Your task to perform on an android device: Clear the cart on newegg. Image 0: 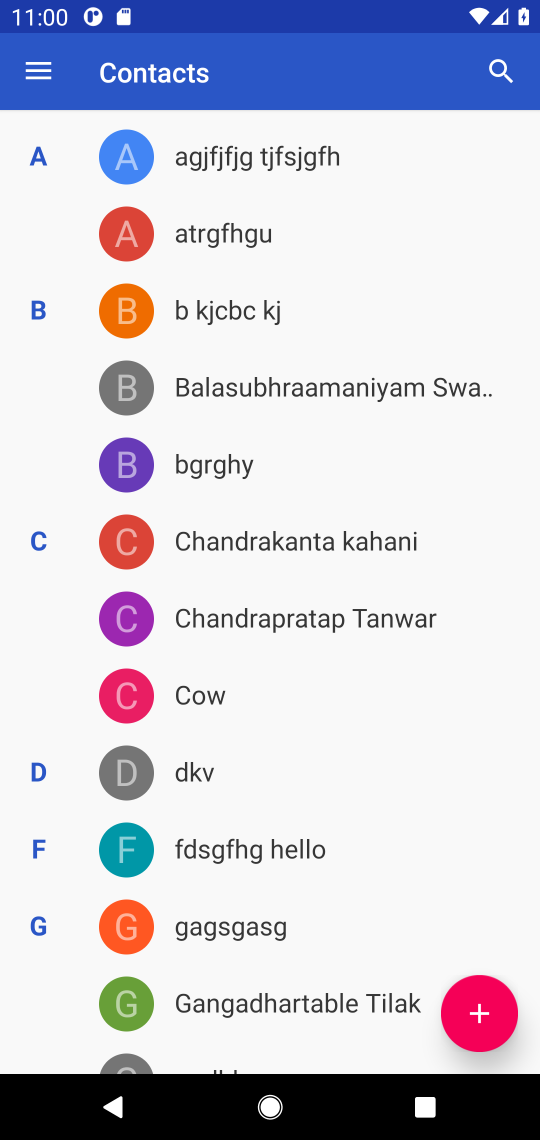
Step 0: press home button
Your task to perform on an android device: Clear the cart on newegg. Image 1: 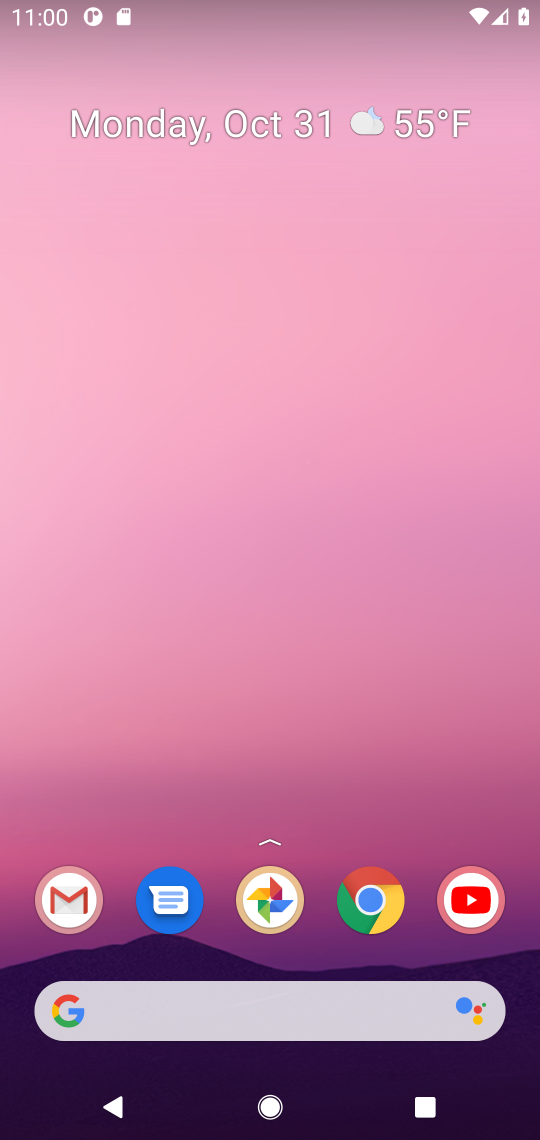
Step 1: click (369, 906)
Your task to perform on an android device: Clear the cart on newegg. Image 2: 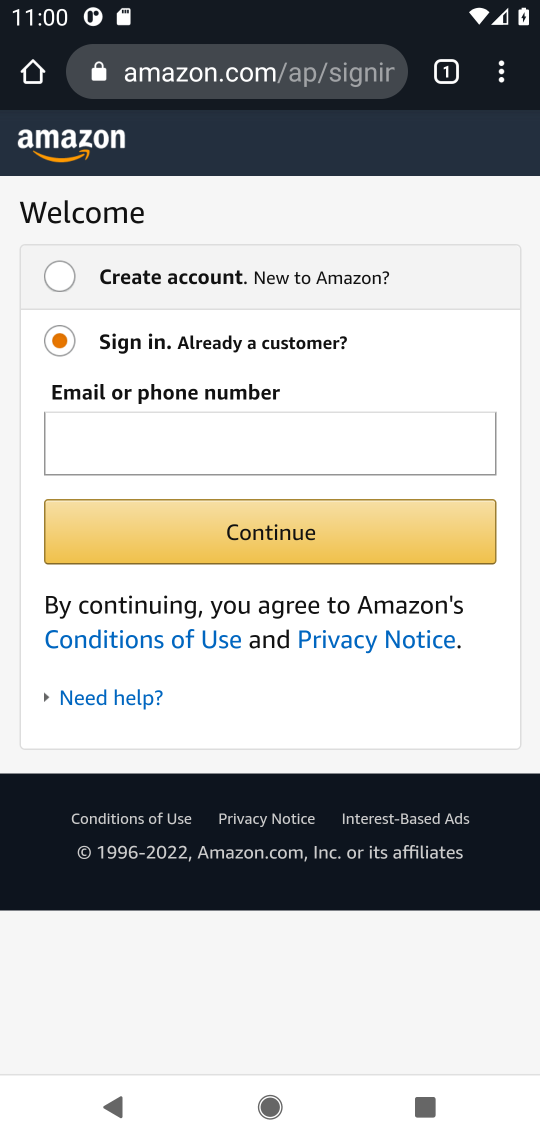
Step 2: click (369, 906)
Your task to perform on an android device: Clear the cart on newegg. Image 3: 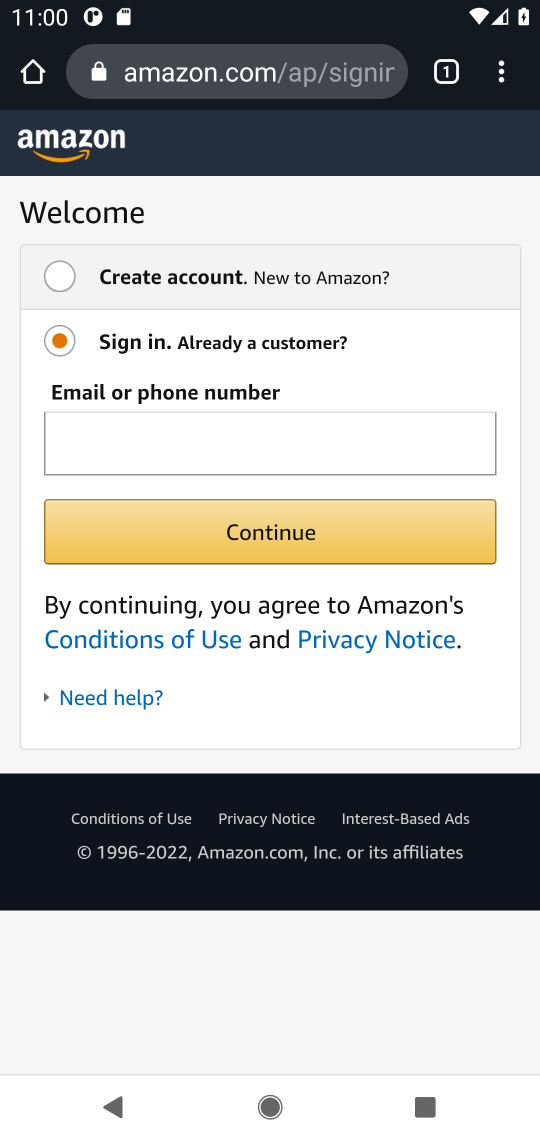
Step 3: click (261, 95)
Your task to perform on an android device: Clear the cart on newegg. Image 4: 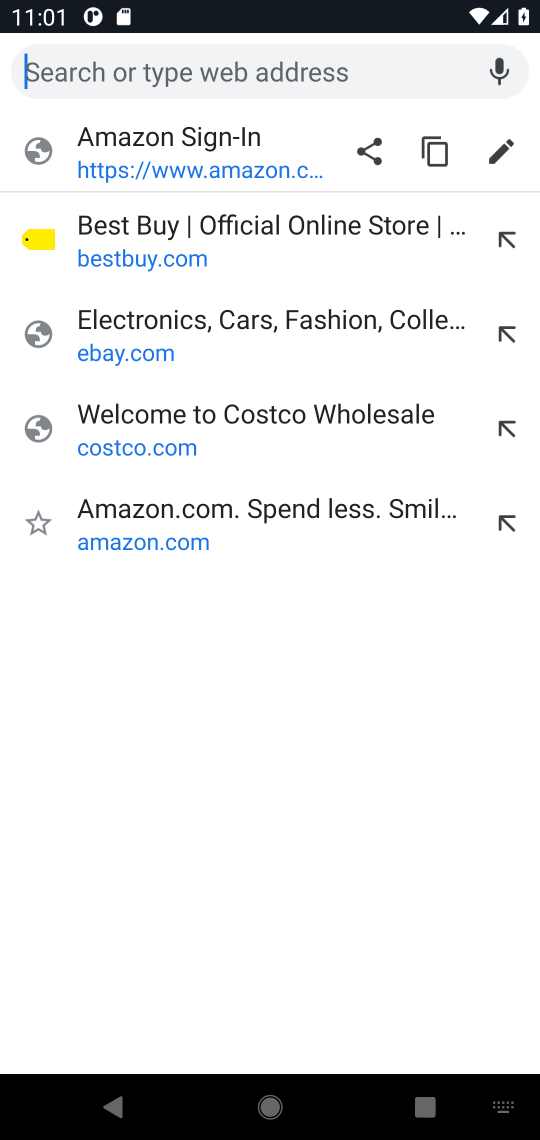
Step 4: type "newegg.com"
Your task to perform on an android device: Clear the cart on newegg. Image 5: 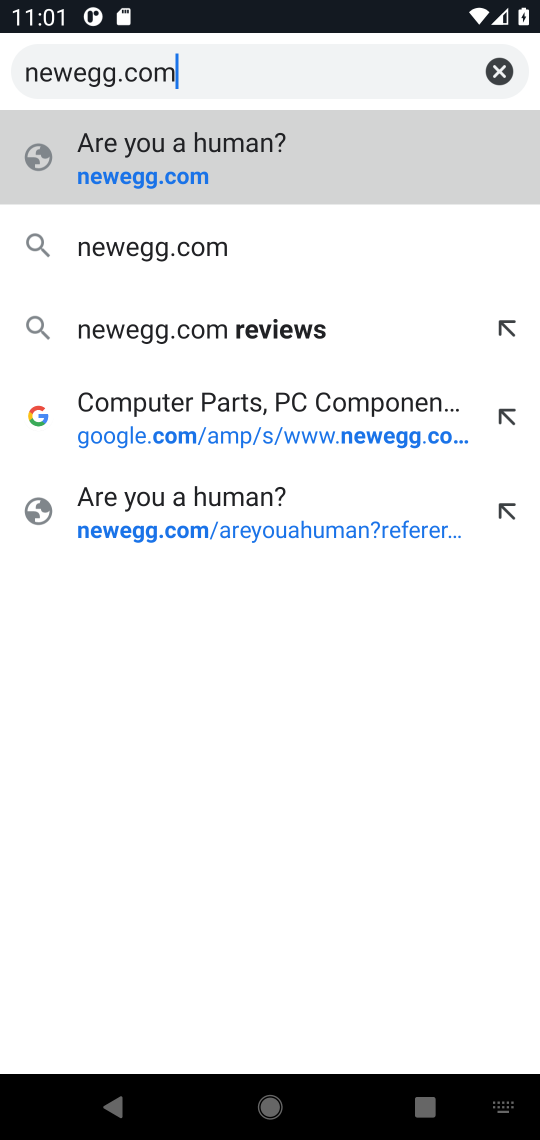
Step 5: click (139, 249)
Your task to perform on an android device: Clear the cart on newegg. Image 6: 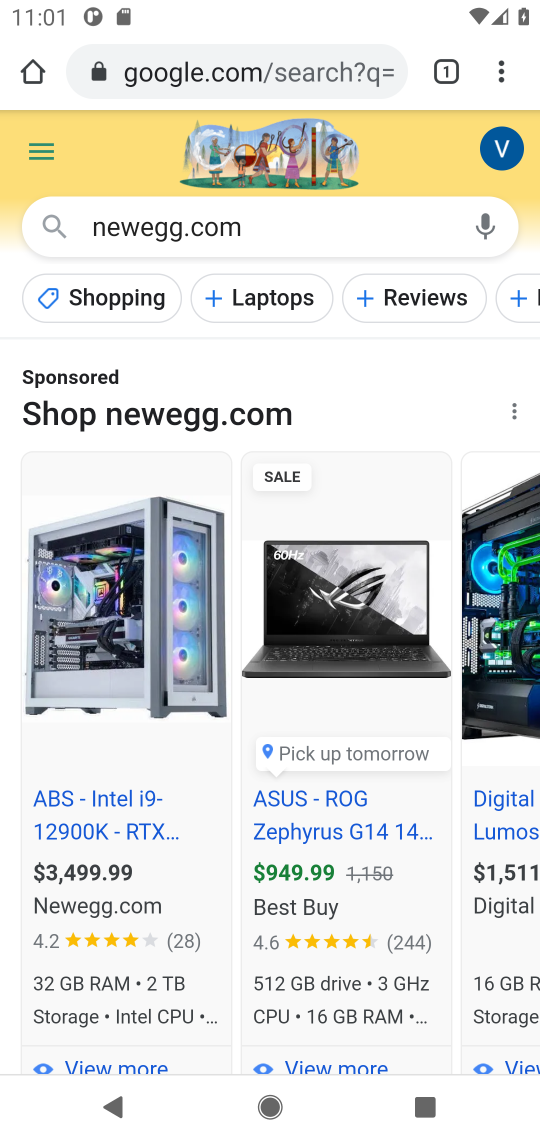
Step 6: drag from (230, 741) to (231, 263)
Your task to perform on an android device: Clear the cart on newegg. Image 7: 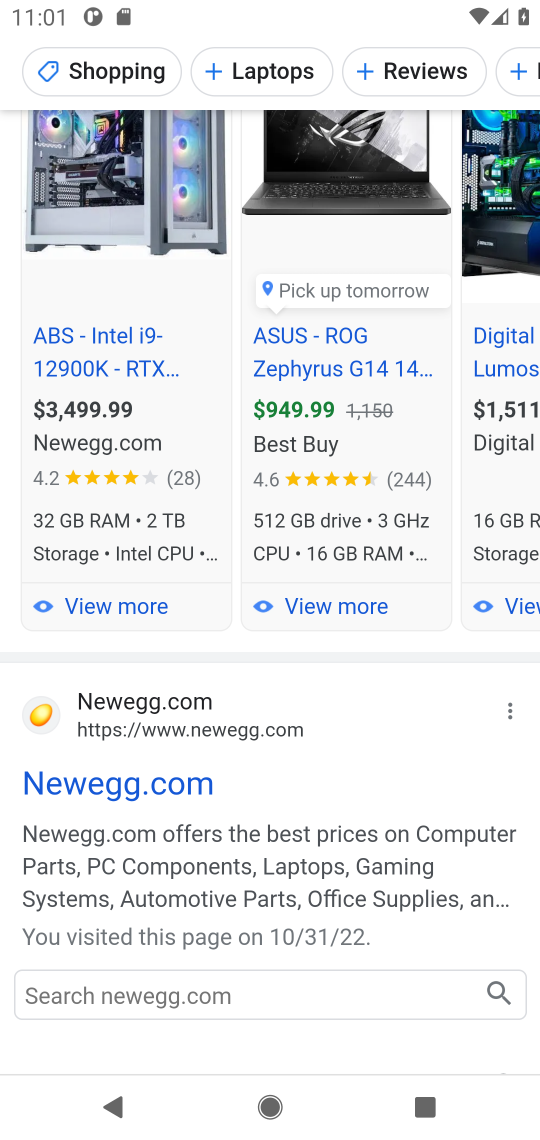
Step 7: click (93, 786)
Your task to perform on an android device: Clear the cart on newegg. Image 8: 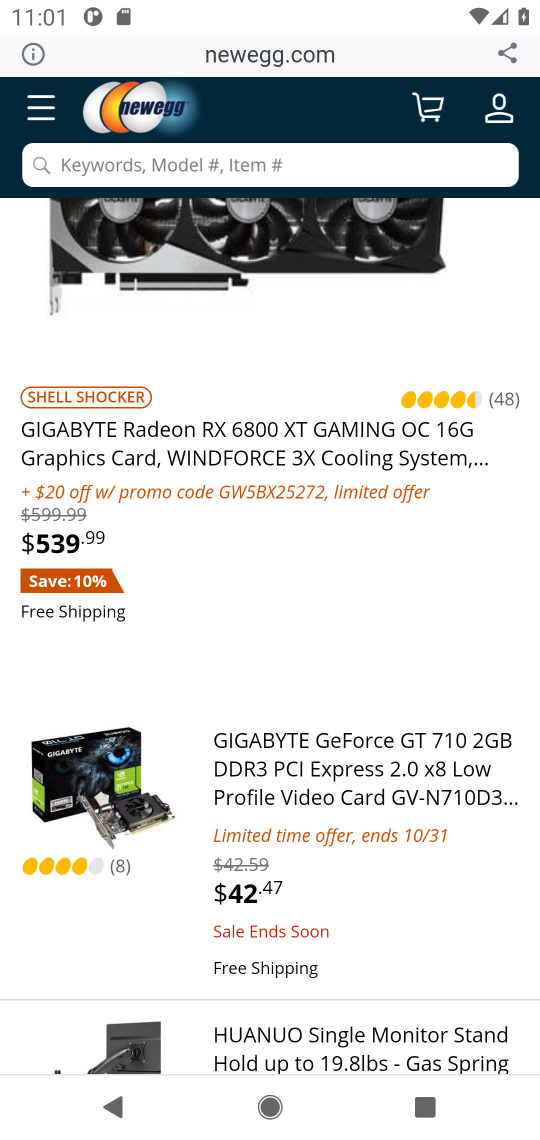
Step 8: click (426, 115)
Your task to perform on an android device: Clear the cart on newegg. Image 9: 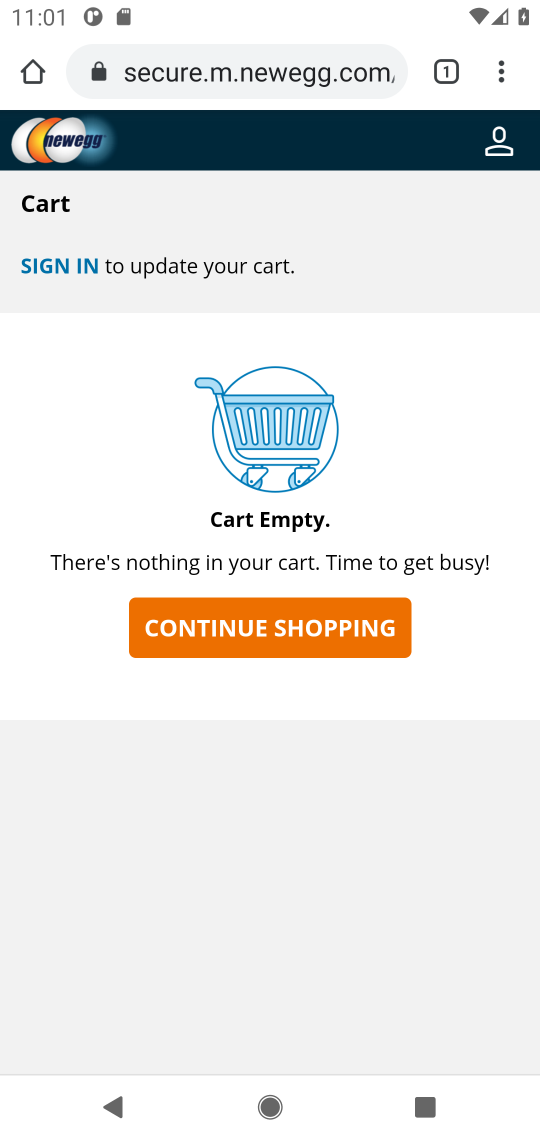
Step 9: task complete